Your task to perform on an android device: uninstall "ZOOM Cloud Meetings" Image 0: 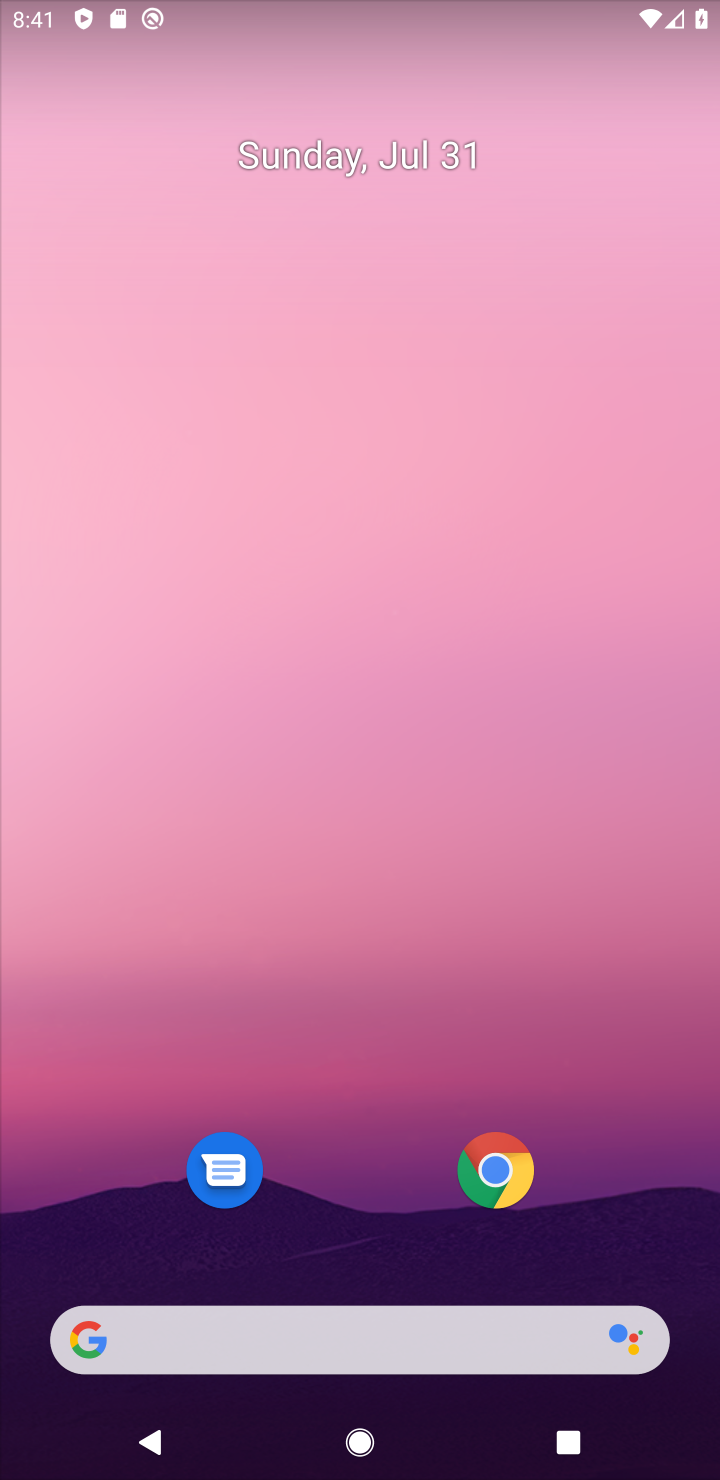
Step 0: drag from (680, 1140) to (417, 73)
Your task to perform on an android device: uninstall "ZOOM Cloud Meetings" Image 1: 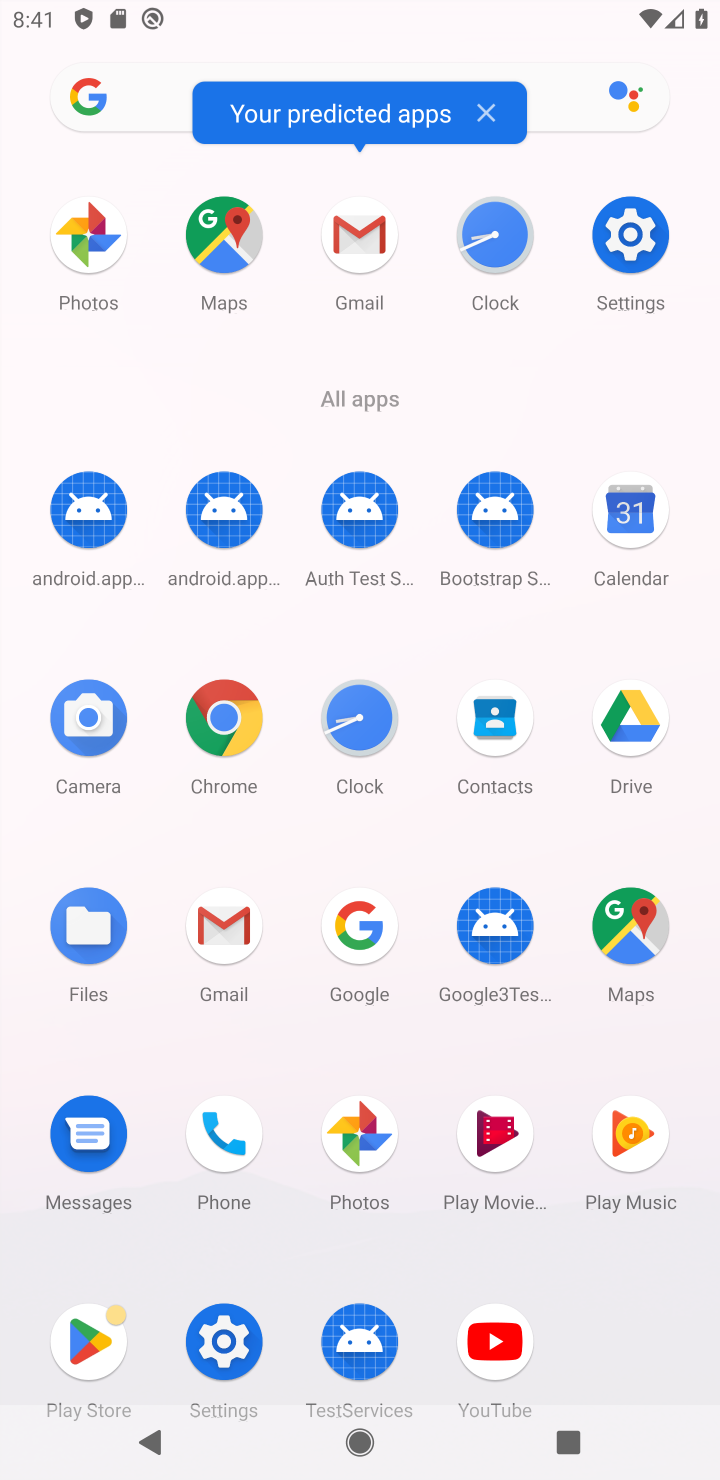
Step 1: click (92, 1326)
Your task to perform on an android device: uninstall "ZOOM Cloud Meetings" Image 2: 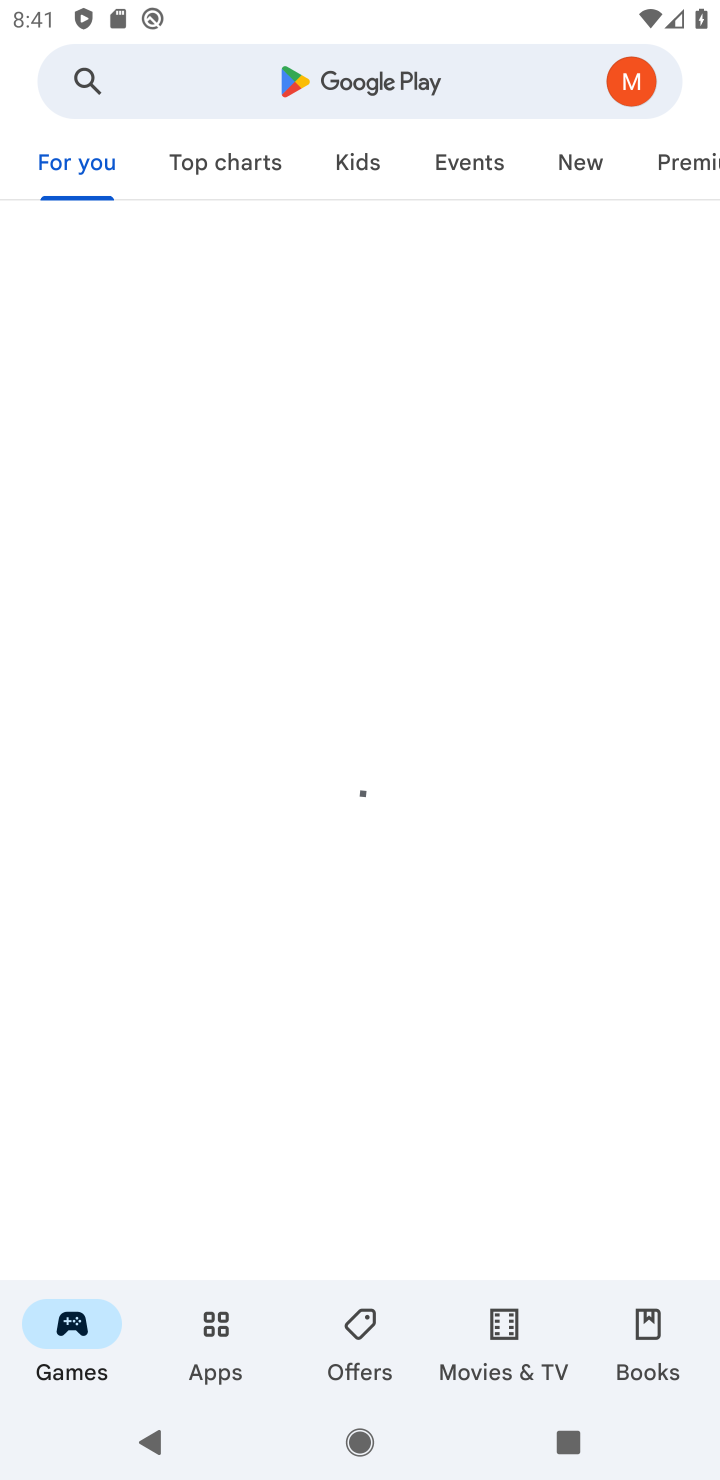
Step 2: click (255, 84)
Your task to perform on an android device: uninstall "ZOOM Cloud Meetings" Image 3: 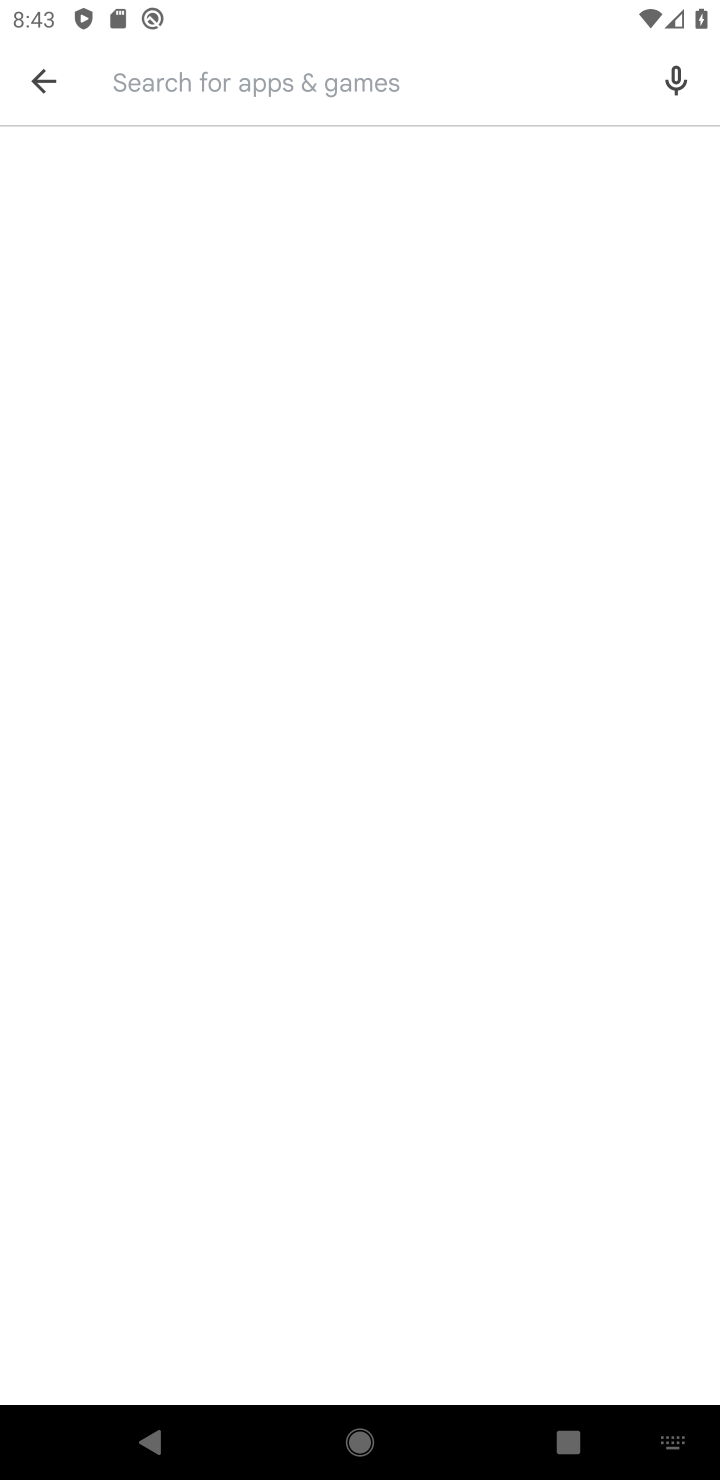
Step 3: type "ZOOM Cloud Meetings"
Your task to perform on an android device: uninstall "ZOOM Cloud Meetings" Image 4: 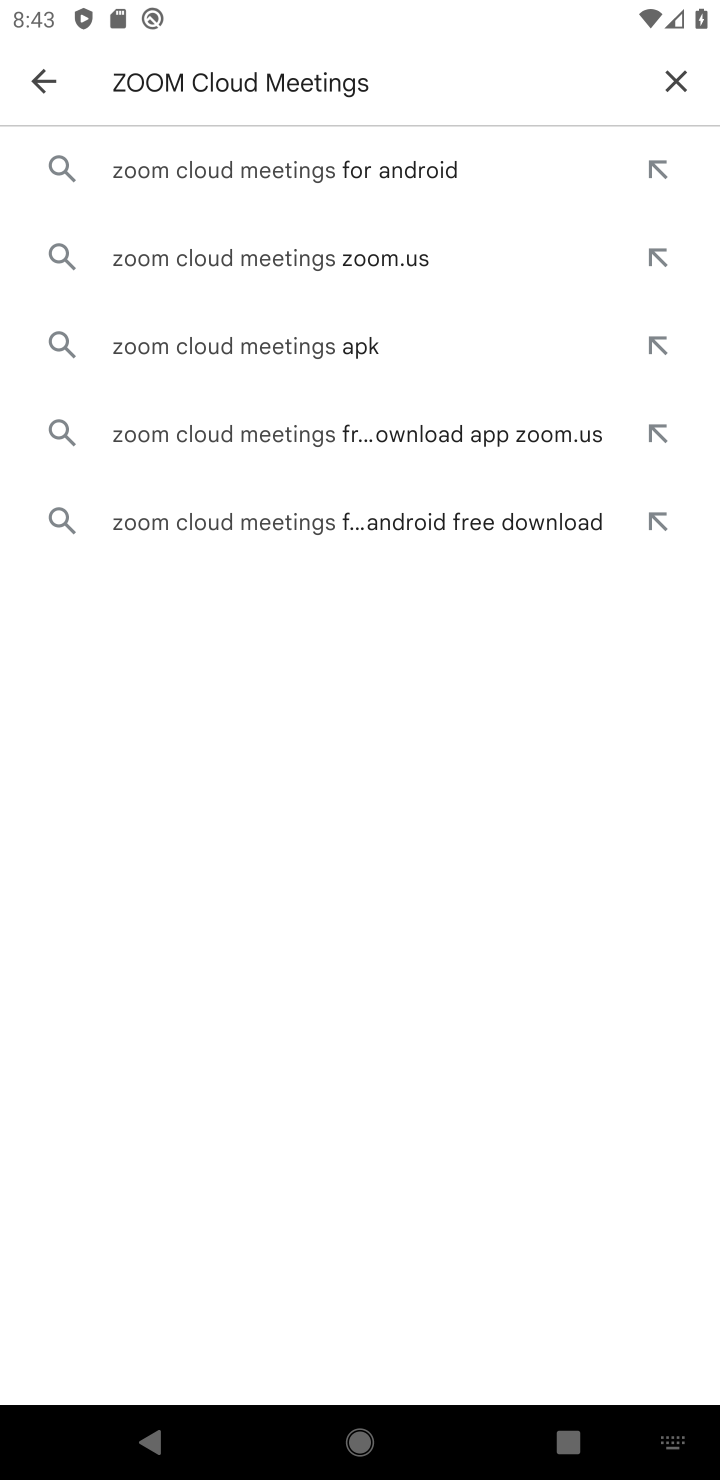
Step 4: task complete